Your task to perform on an android device: see tabs open on other devices in the chrome app Image 0: 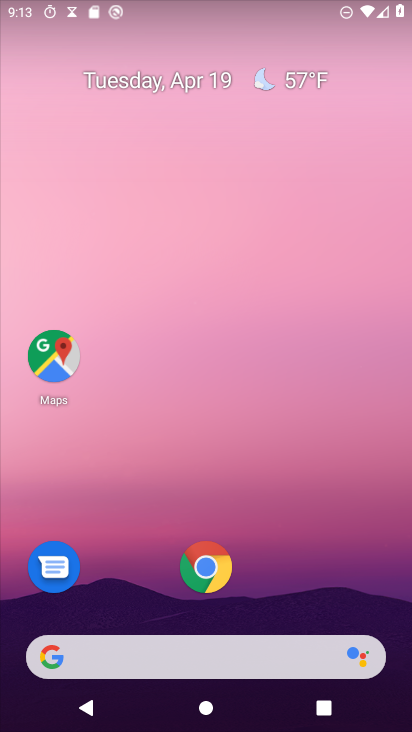
Step 0: drag from (346, 494) to (378, 106)
Your task to perform on an android device: see tabs open on other devices in the chrome app Image 1: 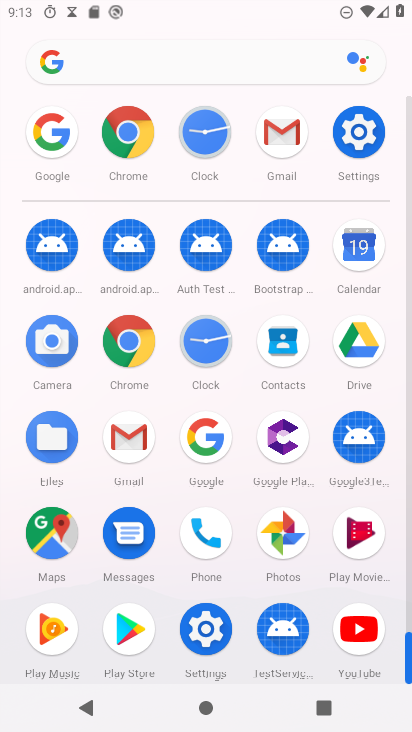
Step 1: click (133, 144)
Your task to perform on an android device: see tabs open on other devices in the chrome app Image 2: 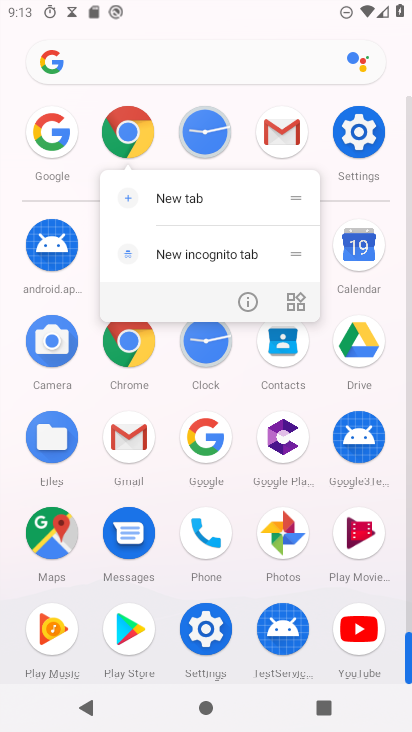
Step 2: click (133, 144)
Your task to perform on an android device: see tabs open on other devices in the chrome app Image 3: 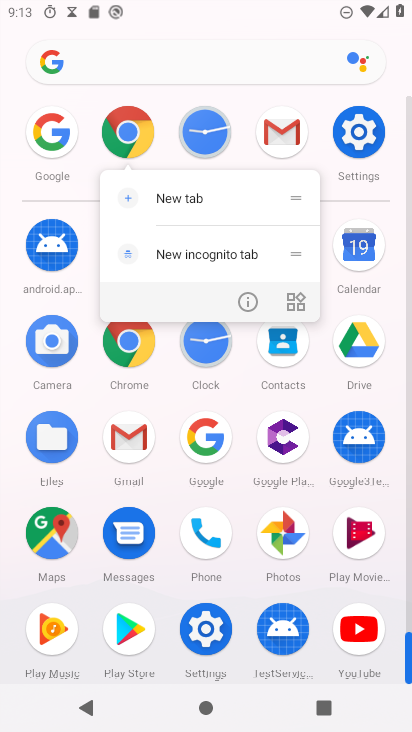
Step 3: click (132, 140)
Your task to perform on an android device: see tabs open on other devices in the chrome app Image 4: 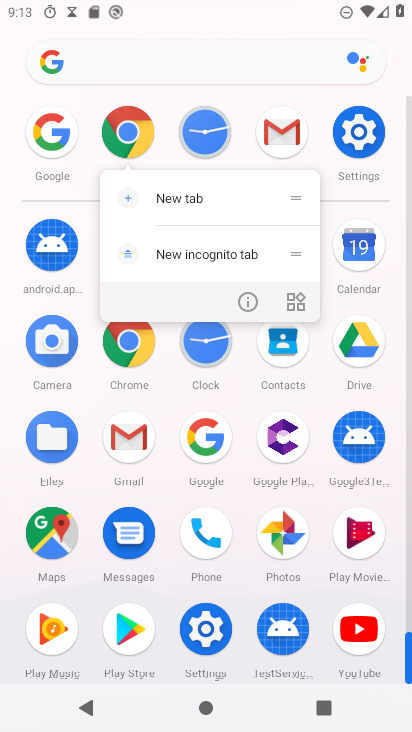
Step 4: click (132, 140)
Your task to perform on an android device: see tabs open on other devices in the chrome app Image 5: 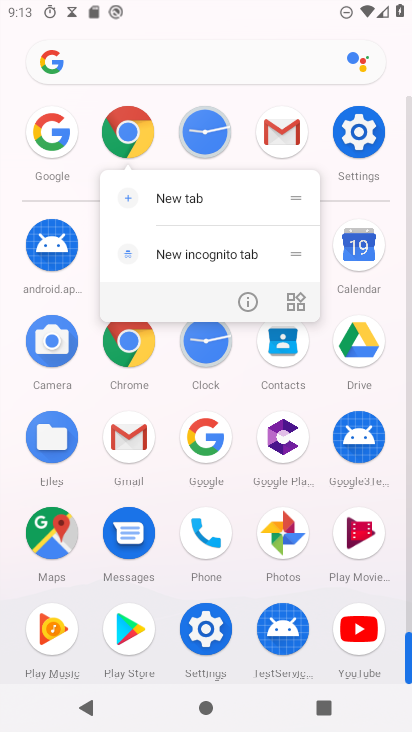
Step 5: click (132, 140)
Your task to perform on an android device: see tabs open on other devices in the chrome app Image 6: 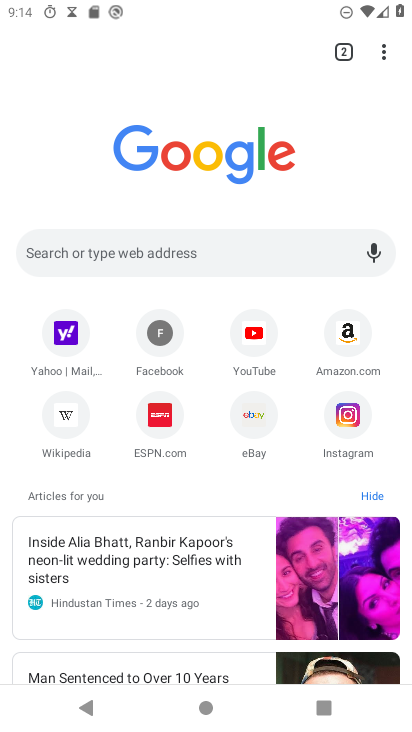
Step 6: task complete